Your task to perform on an android device: Open notification settings Image 0: 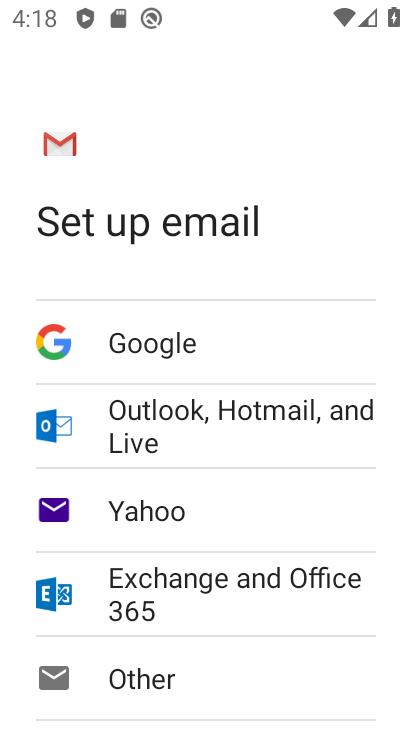
Step 0: press back button
Your task to perform on an android device: Open notification settings Image 1: 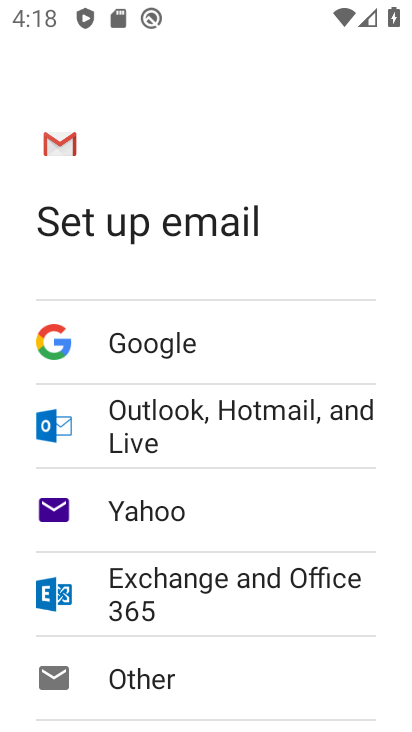
Step 1: press back button
Your task to perform on an android device: Open notification settings Image 2: 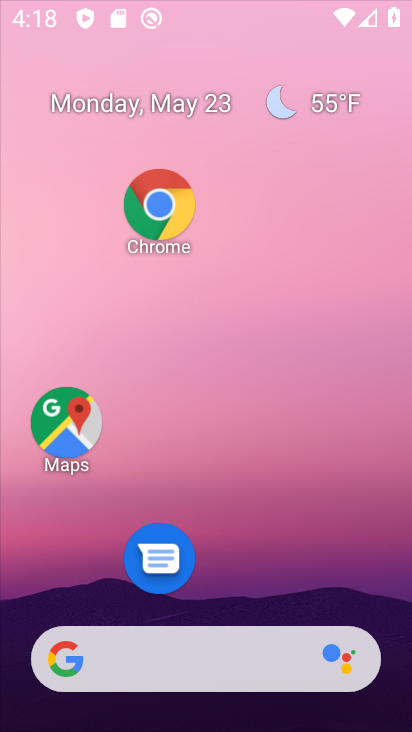
Step 2: press back button
Your task to perform on an android device: Open notification settings Image 3: 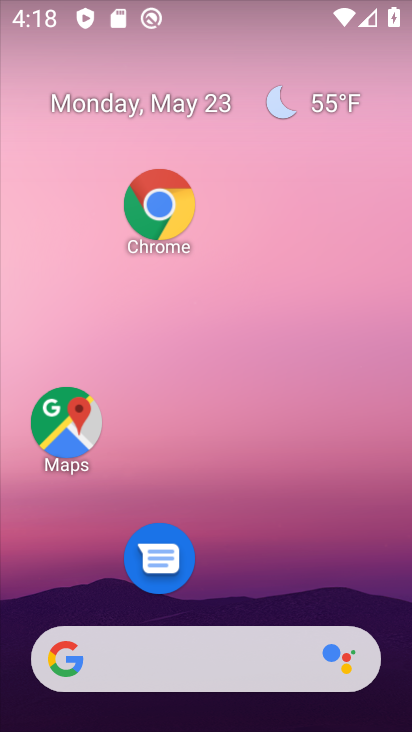
Step 3: drag from (286, 686) to (191, 98)
Your task to perform on an android device: Open notification settings Image 4: 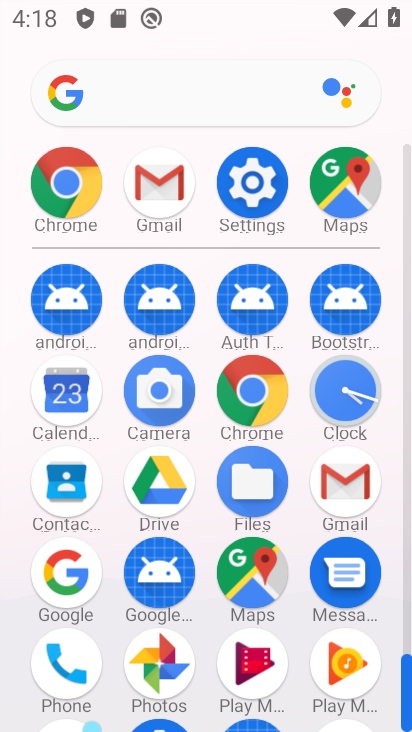
Step 4: click (245, 196)
Your task to perform on an android device: Open notification settings Image 5: 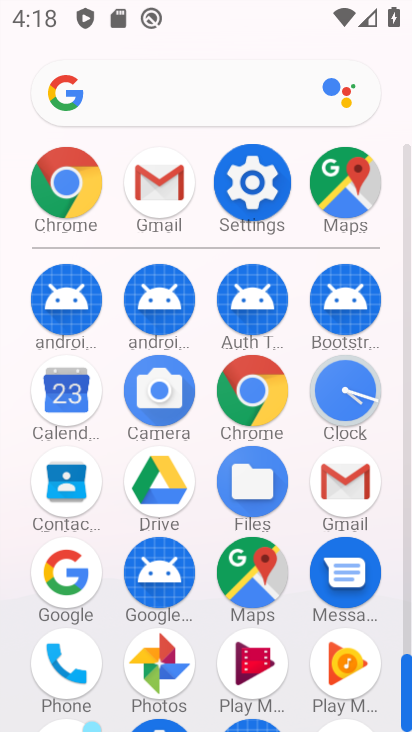
Step 5: click (245, 196)
Your task to perform on an android device: Open notification settings Image 6: 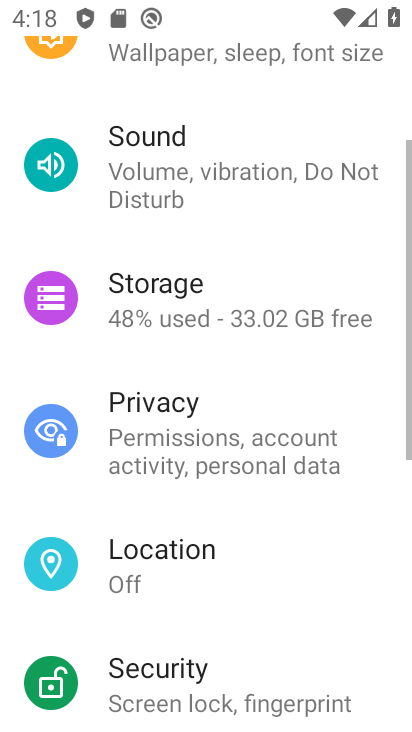
Step 6: click (245, 196)
Your task to perform on an android device: Open notification settings Image 7: 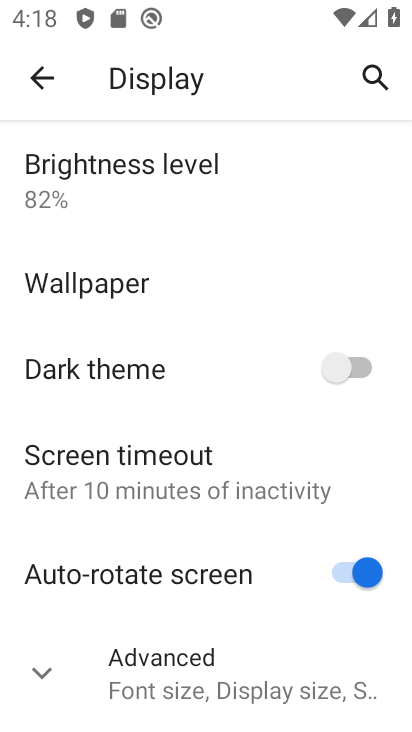
Step 7: click (44, 72)
Your task to perform on an android device: Open notification settings Image 8: 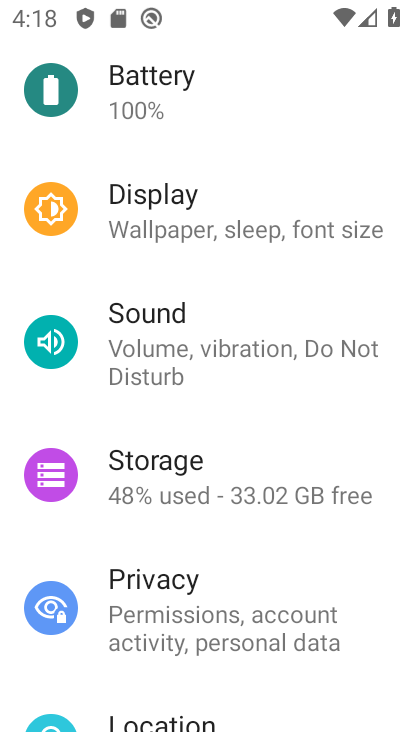
Step 8: drag from (185, 134) to (190, 514)
Your task to perform on an android device: Open notification settings Image 9: 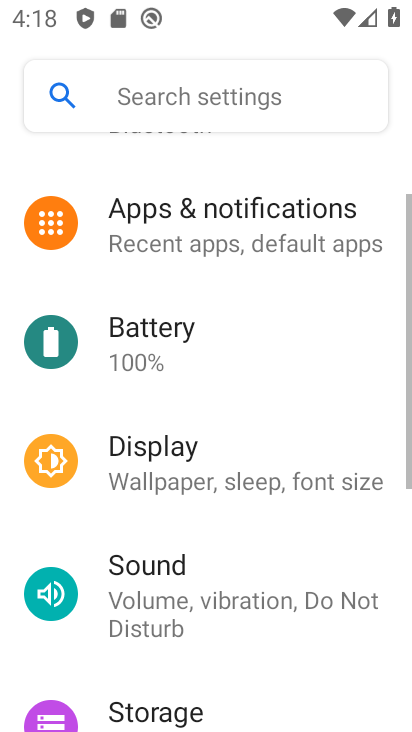
Step 9: drag from (184, 193) to (192, 536)
Your task to perform on an android device: Open notification settings Image 10: 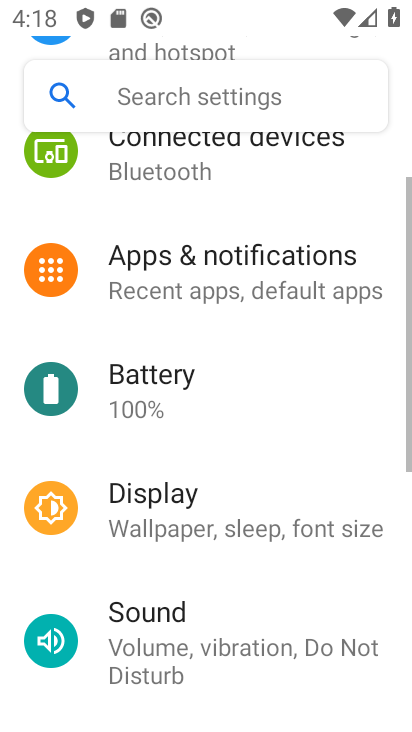
Step 10: drag from (193, 163) to (263, 623)
Your task to perform on an android device: Open notification settings Image 11: 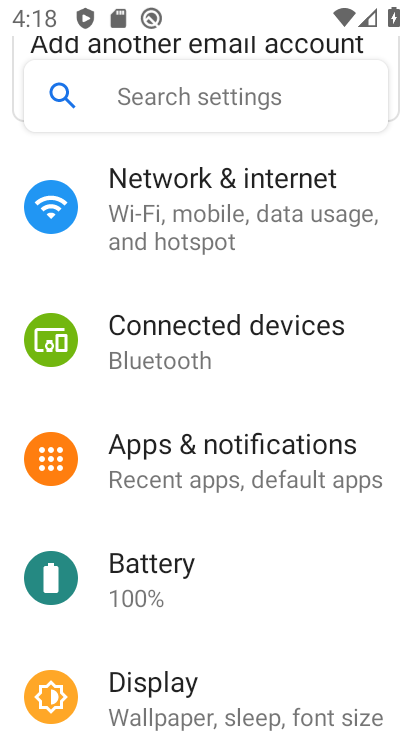
Step 11: click (223, 462)
Your task to perform on an android device: Open notification settings Image 12: 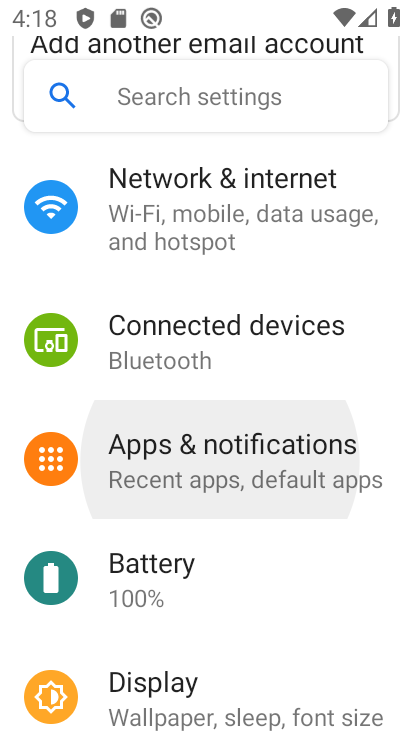
Step 12: click (223, 462)
Your task to perform on an android device: Open notification settings Image 13: 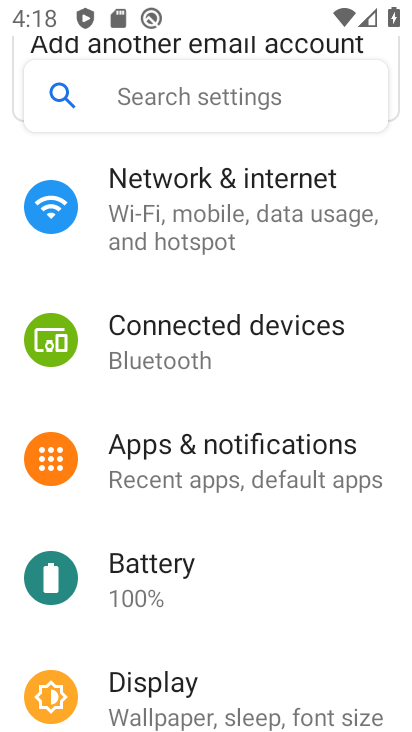
Step 13: click (223, 462)
Your task to perform on an android device: Open notification settings Image 14: 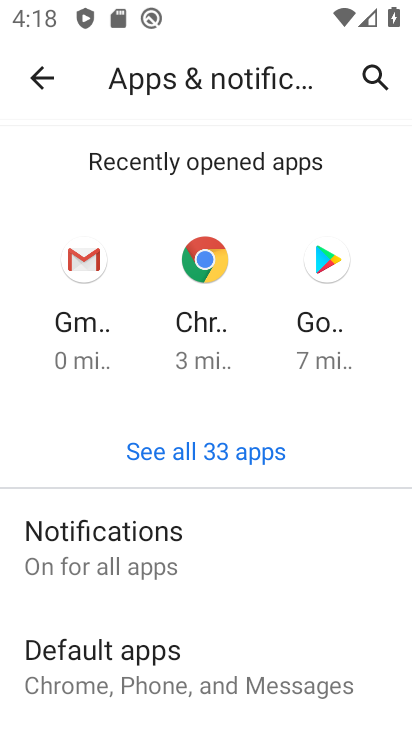
Step 14: click (92, 548)
Your task to perform on an android device: Open notification settings Image 15: 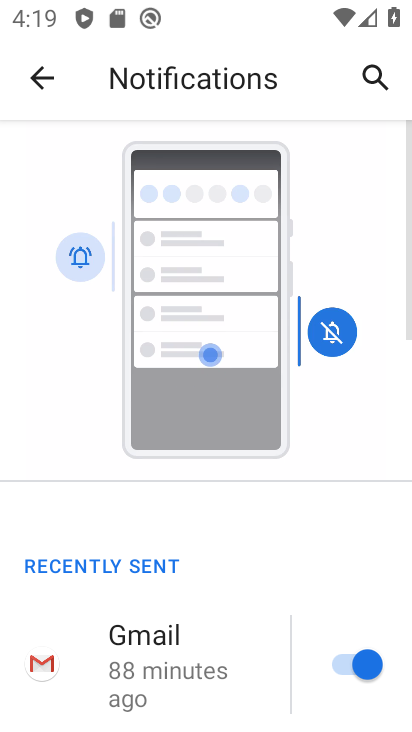
Step 15: click (103, 557)
Your task to perform on an android device: Open notification settings Image 16: 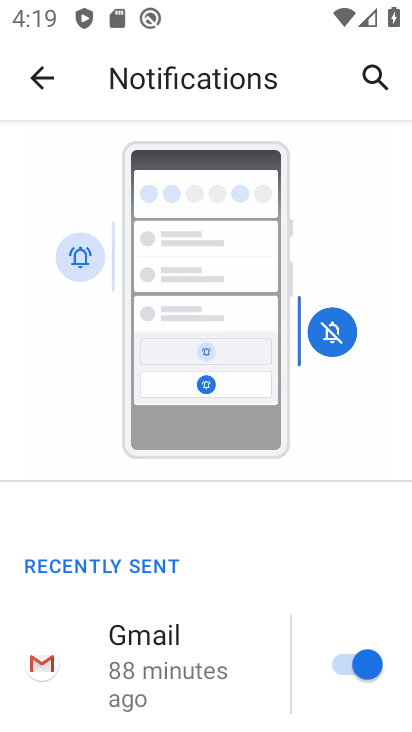
Step 16: click (103, 557)
Your task to perform on an android device: Open notification settings Image 17: 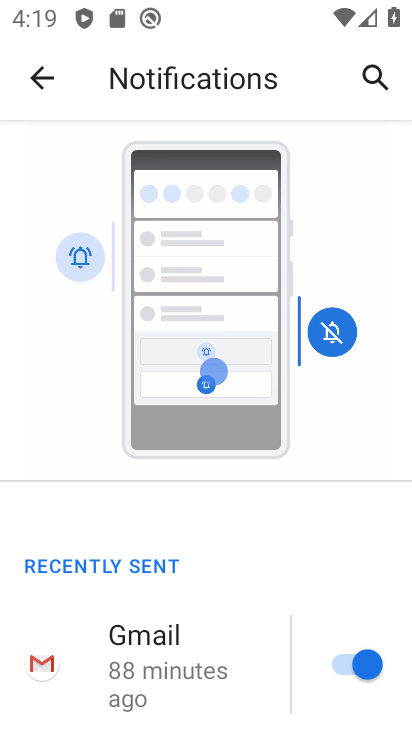
Step 17: click (103, 557)
Your task to perform on an android device: Open notification settings Image 18: 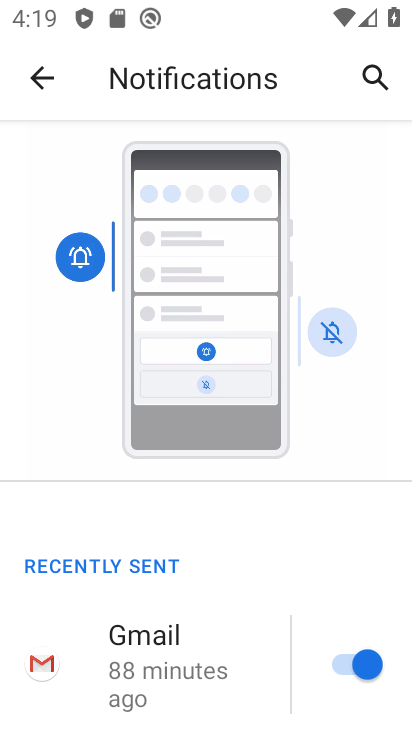
Step 18: drag from (220, 590) to (221, 206)
Your task to perform on an android device: Open notification settings Image 19: 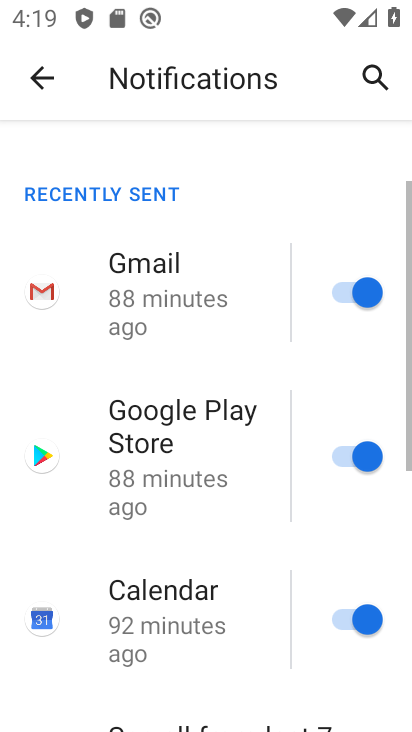
Step 19: drag from (252, 567) to (226, 251)
Your task to perform on an android device: Open notification settings Image 20: 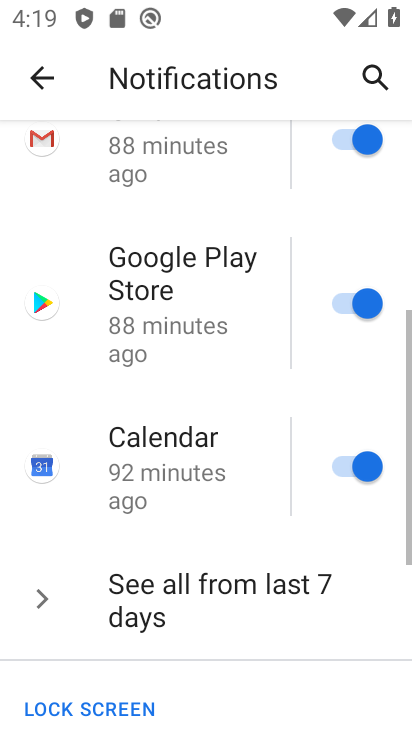
Step 20: drag from (281, 625) to (163, 264)
Your task to perform on an android device: Open notification settings Image 21: 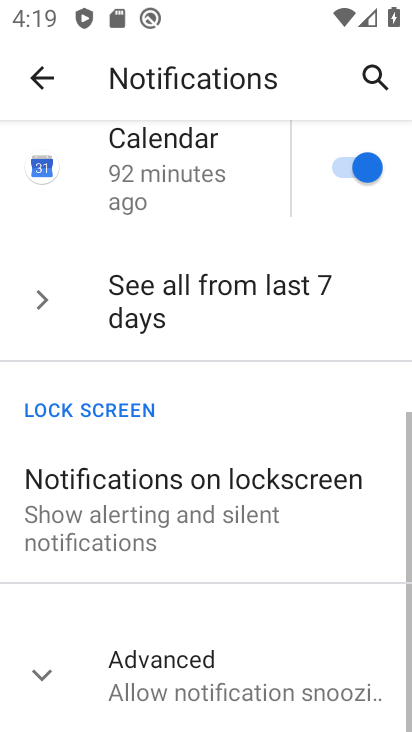
Step 21: drag from (168, 513) to (175, 184)
Your task to perform on an android device: Open notification settings Image 22: 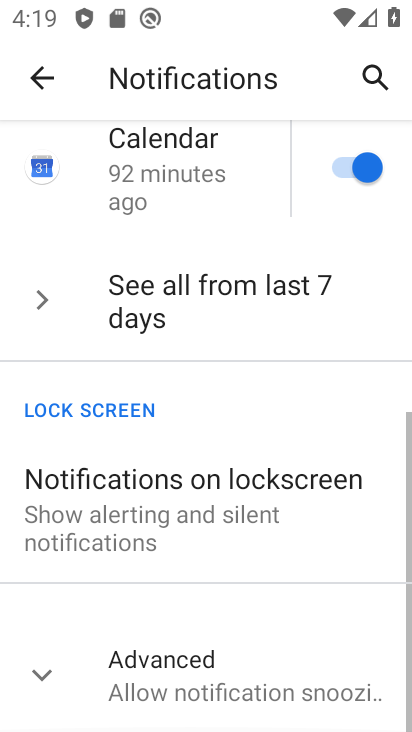
Step 22: drag from (226, 399) to (230, 218)
Your task to perform on an android device: Open notification settings Image 23: 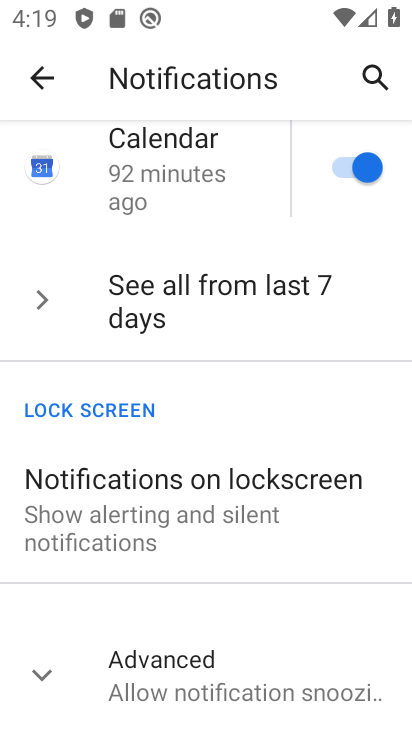
Step 23: drag from (197, 488) to (144, 67)
Your task to perform on an android device: Open notification settings Image 24: 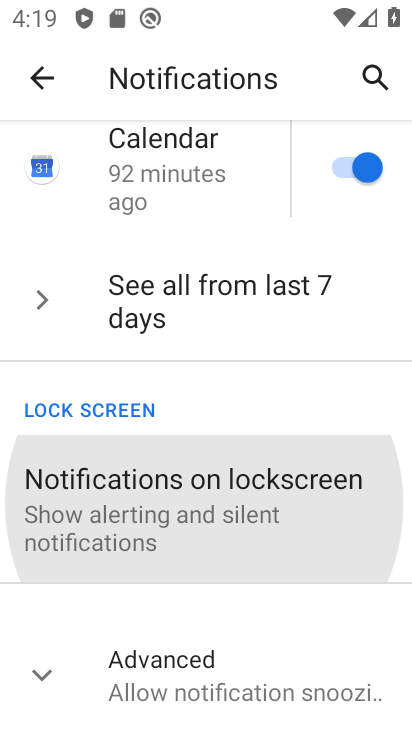
Step 24: drag from (225, 462) to (225, 217)
Your task to perform on an android device: Open notification settings Image 25: 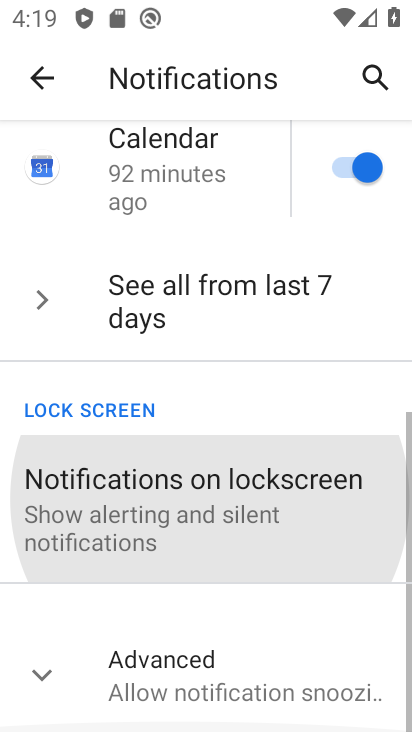
Step 25: click (206, 188)
Your task to perform on an android device: Open notification settings Image 26: 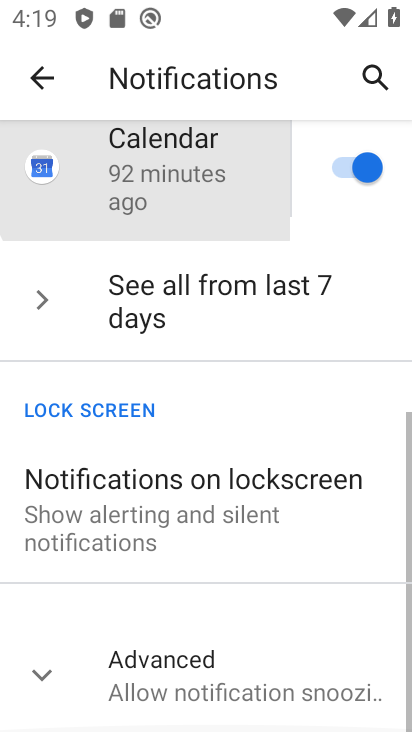
Step 26: drag from (239, 386) to (239, 160)
Your task to perform on an android device: Open notification settings Image 27: 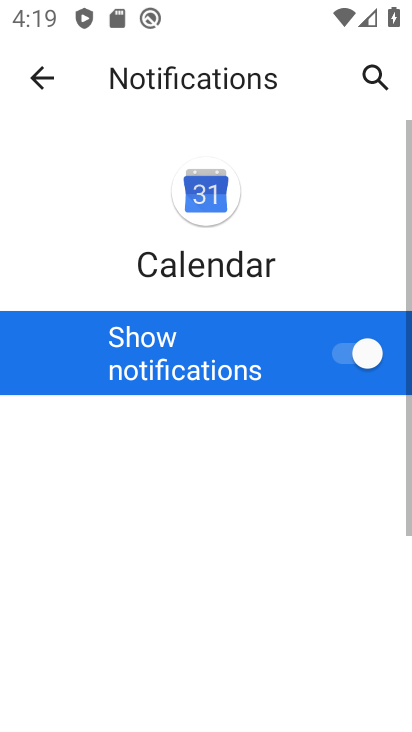
Step 27: drag from (216, 245) to (205, 112)
Your task to perform on an android device: Open notification settings Image 28: 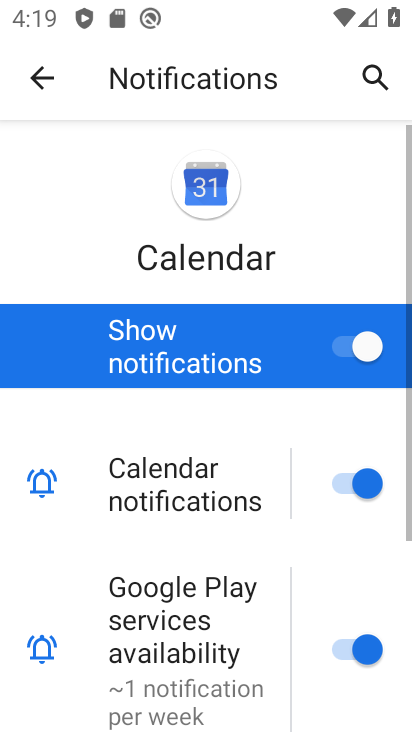
Step 28: drag from (205, 438) to (195, 143)
Your task to perform on an android device: Open notification settings Image 29: 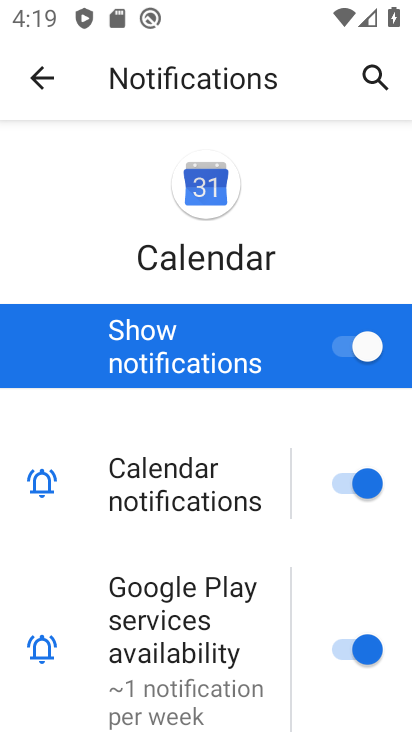
Step 29: drag from (209, 560) to (162, 296)
Your task to perform on an android device: Open notification settings Image 30: 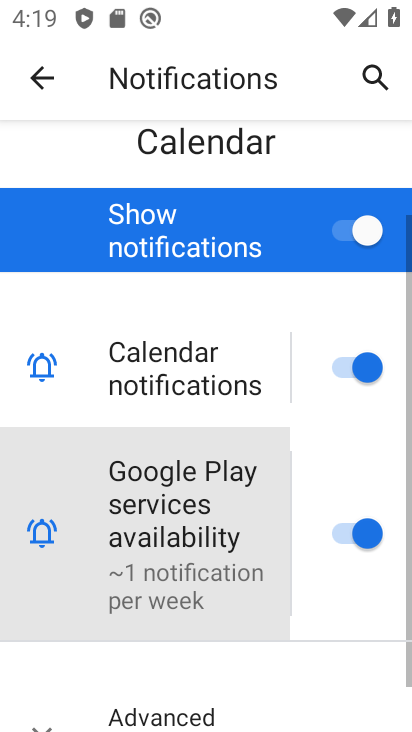
Step 30: drag from (187, 505) to (150, 243)
Your task to perform on an android device: Open notification settings Image 31: 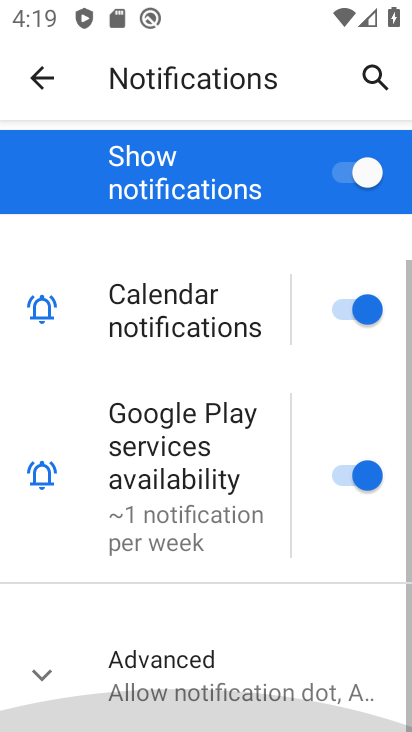
Step 31: drag from (172, 558) to (186, 265)
Your task to perform on an android device: Open notification settings Image 32: 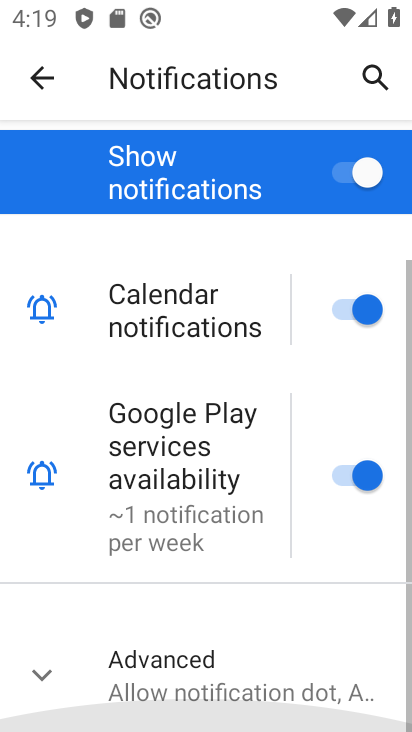
Step 32: drag from (168, 494) to (114, 8)
Your task to perform on an android device: Open notification settings Image 33: 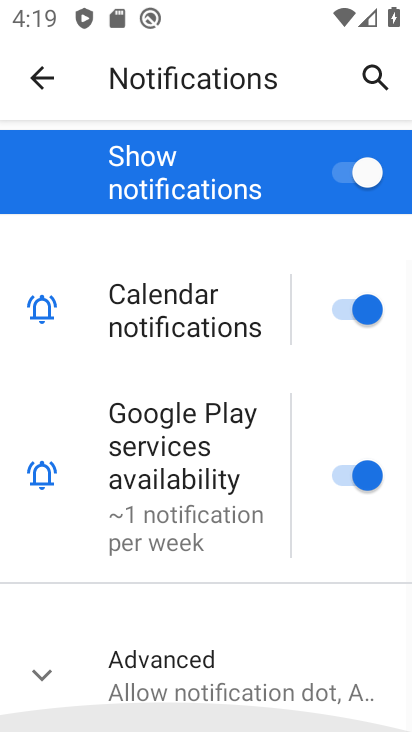
Step 33: click (220, 138)
Your task to perform on an android device: Open notification settings Image 34: 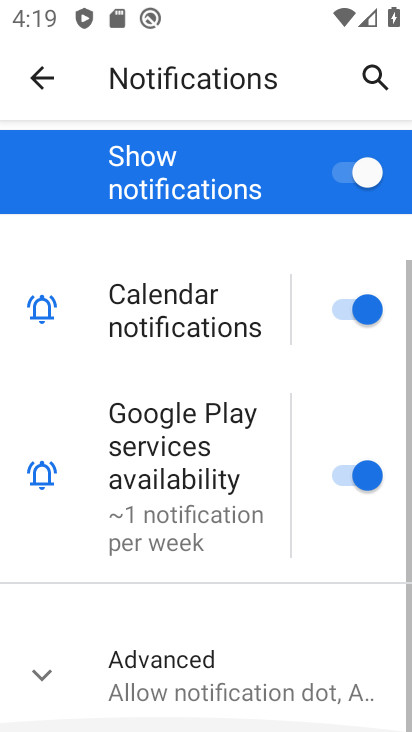
Step 34: drag from (195, 527) to (178, 218)
Your task to perform on an android device: Open notification settings Image 35: 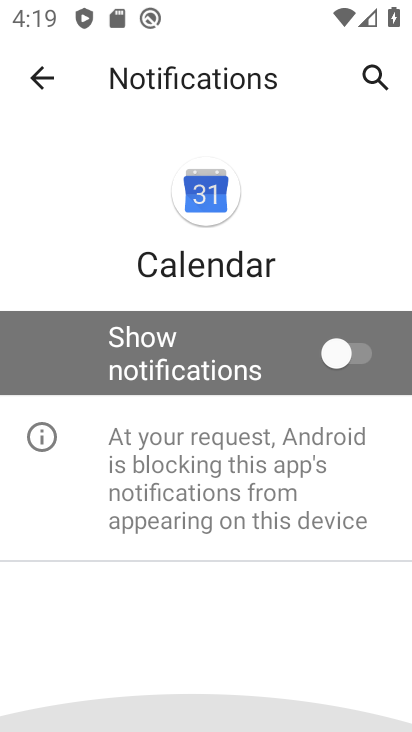
Step 35: drag from (184, 499) to (170, 329)
Your task to perform on an android device: Open notification settings Image 36: 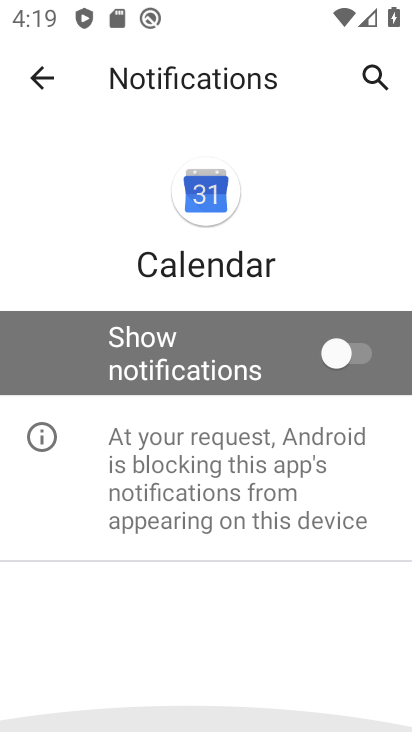
Step 36: drag from (174, 481) to (157, 285)
Your task to perform on an android device: Open notification settings Image 37: 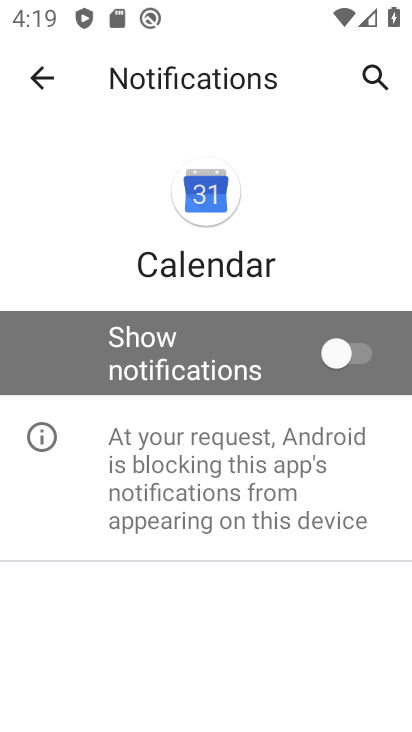
Step 37: click (36, 81)
Your task to perform on an android device: Open notification settings Image 38: 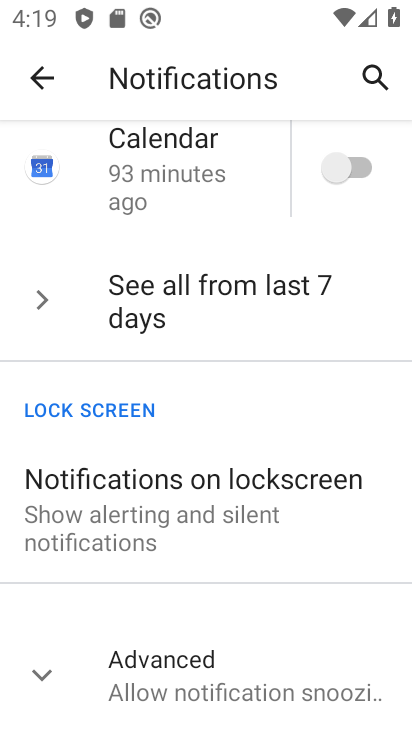
Step 38: click (176, 678)
Your task to perform on an android device: Open notification settings Image 39: 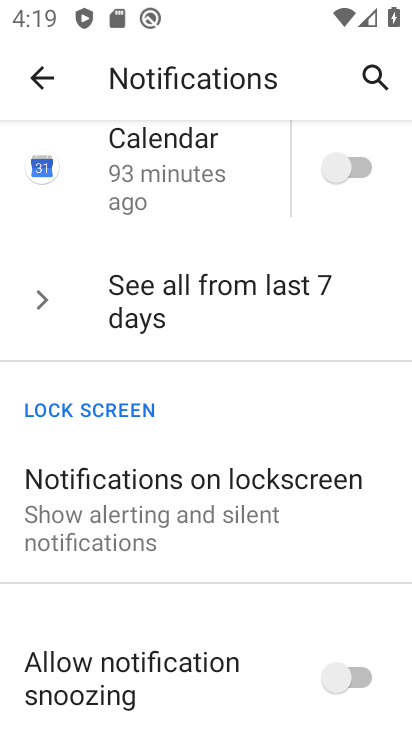
Step 39: task complete